Your task to perform on an android device: Go to Wikipedia Image 0: 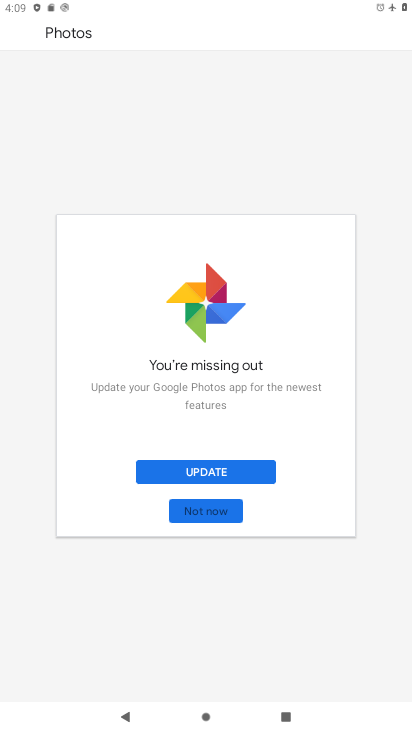
Step 0: press home button
Your task to perform on an android device: Go to Wikipedia Image 1: 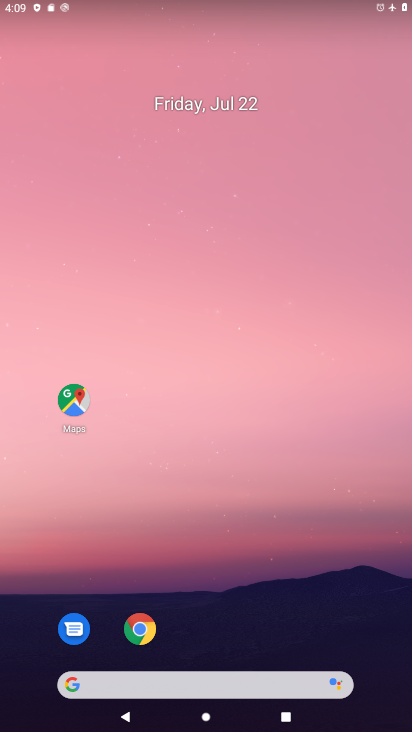
Step 1: drag from (322, 552) to (277, 0)
Your task to perform on an android device: Go to Wikipedia Image 2: 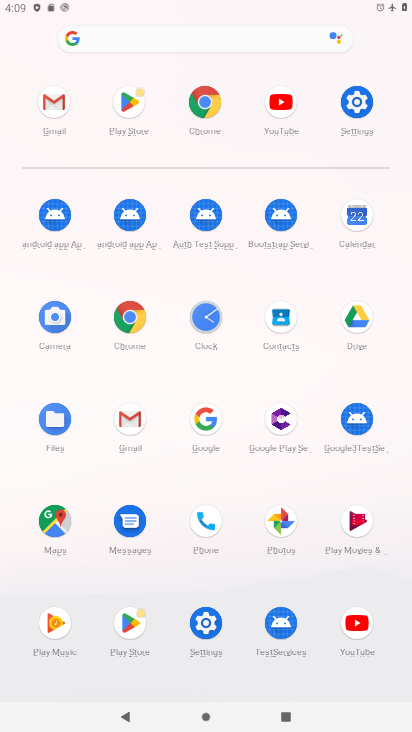
Step 2: click (203, 108)
Your task to perform on an android device: Go to Wikipedia Image 3: 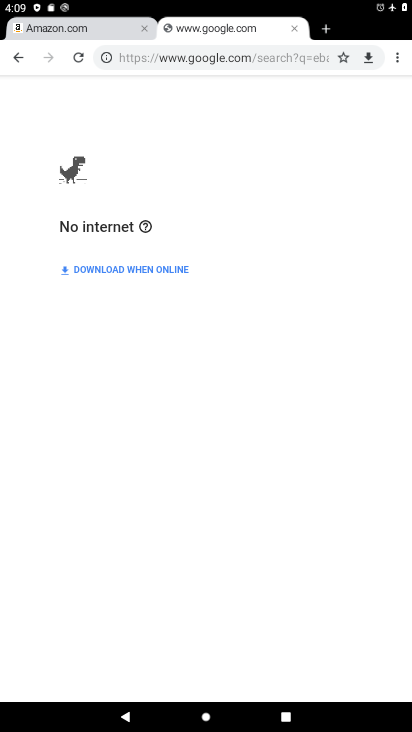
Step 3: click (281, 55)
Your task to perform on an android device: Go to Wikipedia Image 4: 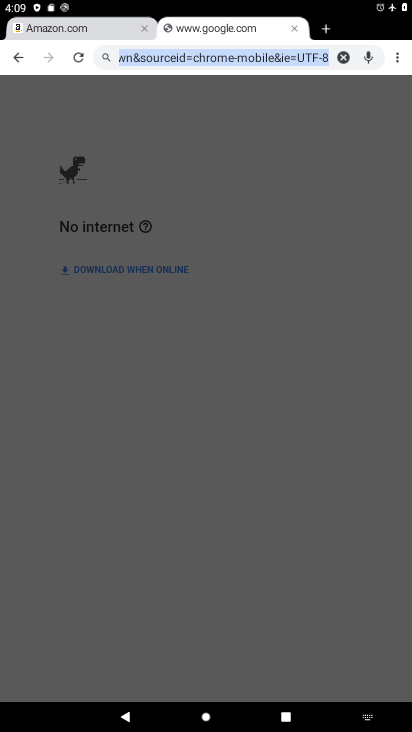
Step 4: type "wikipdeia"
Your task to perform on an android device: Go to Wikipedia Image 5: 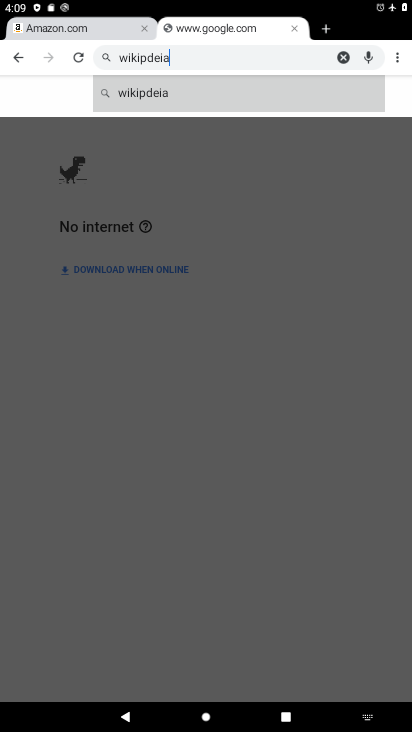
Step 5: click (223, 95)
Your task to perform on an android device: Go to Wikipedia Image 6: 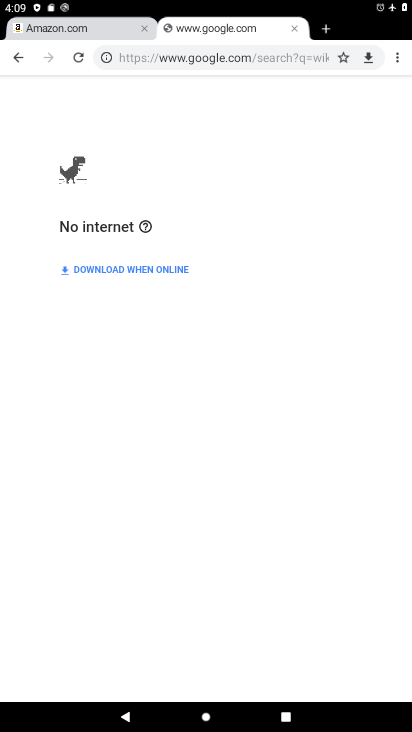
Step 6: click (229, 61)
Your task to perform on an android device: Go to Wikipedia Image 7: 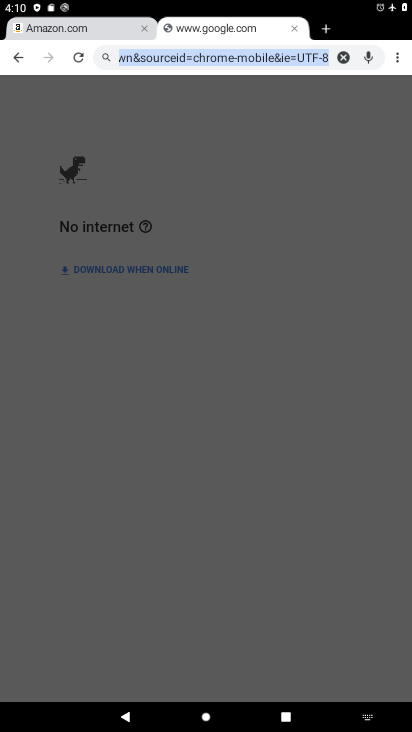
Step 7: type "wikipdeiad"
Your task to perform on an android device: Go to Wikipedia Image 8: 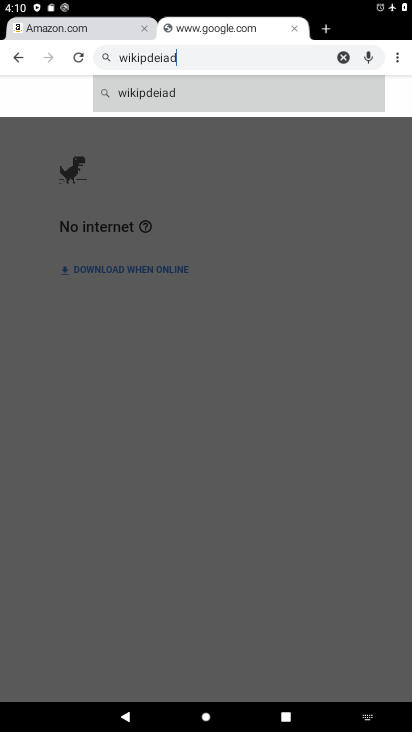
Step 8: click (179, 87)
Your task to perform on an android device: Go to Wikipedia Image 9: 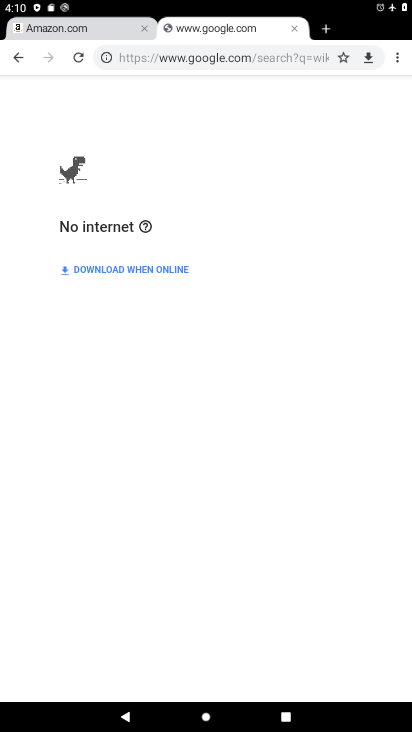
Step 9: task complete